Your task to perform on an android device: Open the play store Image 0: 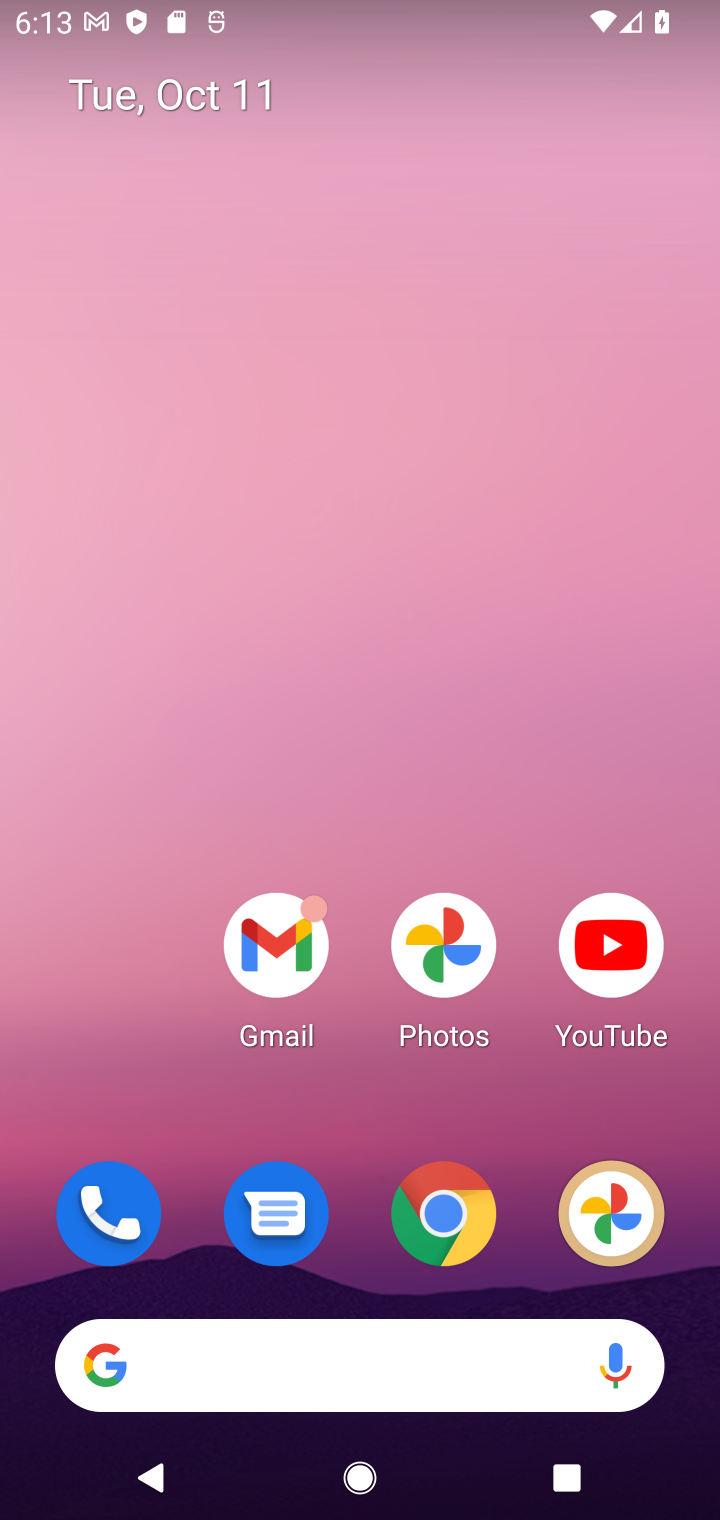
Step 0: drag from (433, 1454) to (424, 244)
Your task to perform on an android device: Open the play store Image 1: 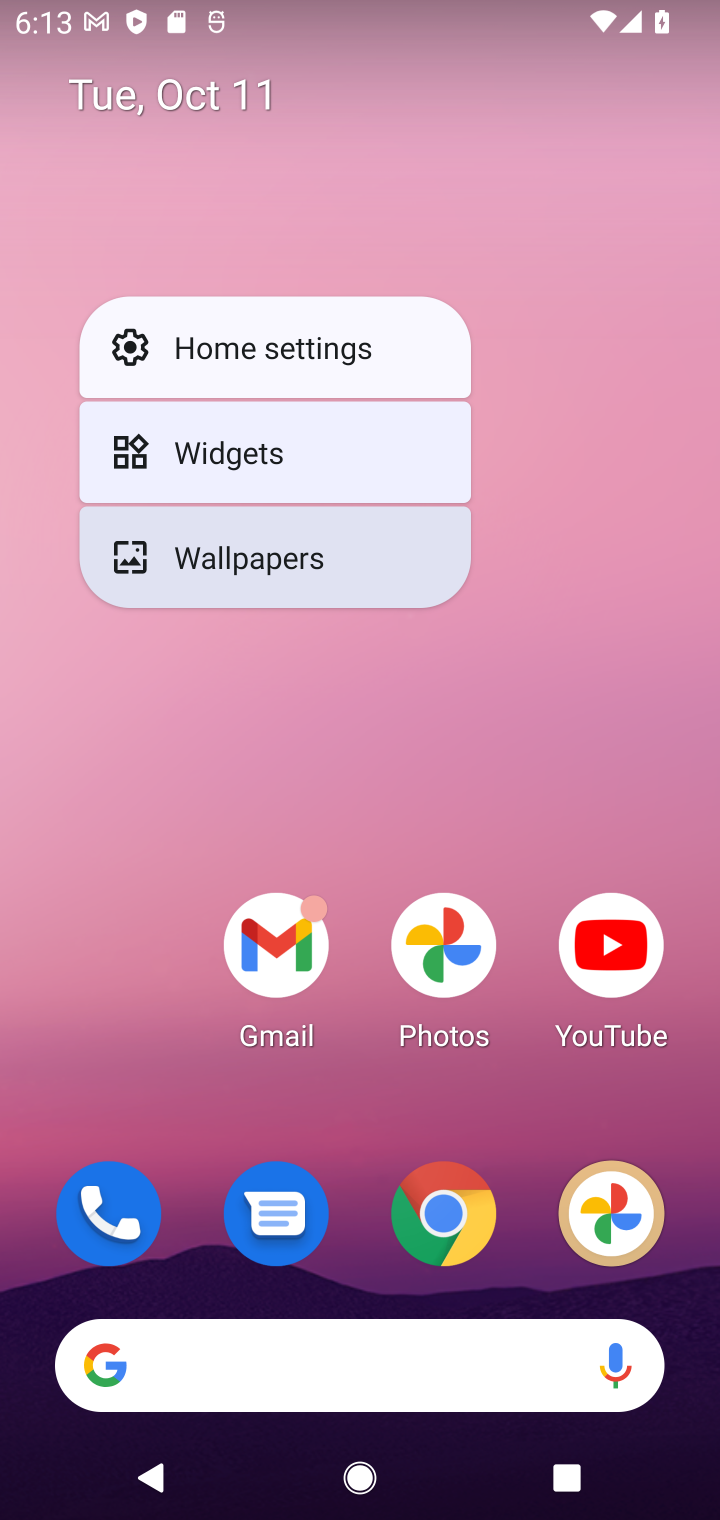
Step 1: click (529, 729)
Your task to perform on an android device: Open the play store Image 2: 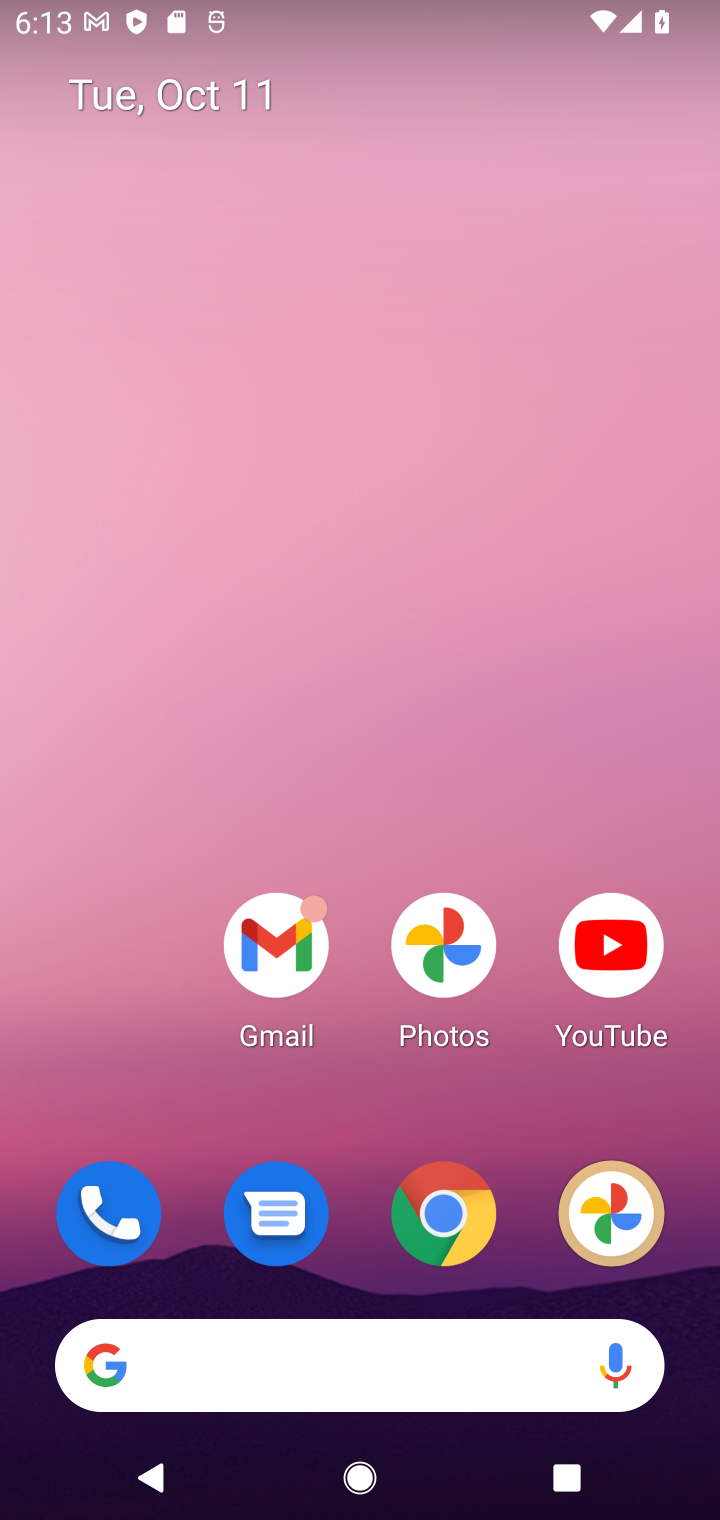
Step 2: drag from (540, 758) to (501, 525)
Your task to perform on an android device: Open the play store Image 3: 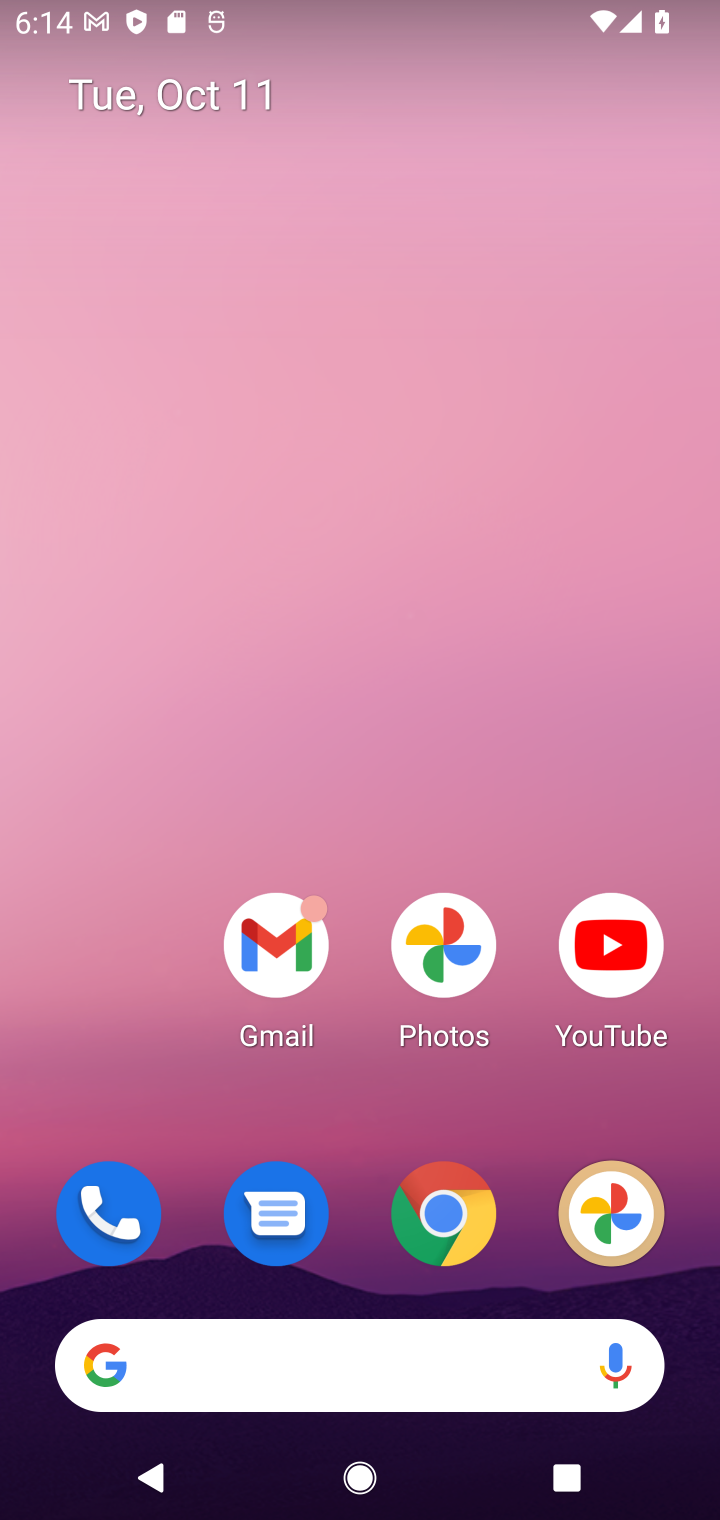
Step 3: click (438, 425)
Your task to perform on an android device: Open the play store Image 4: 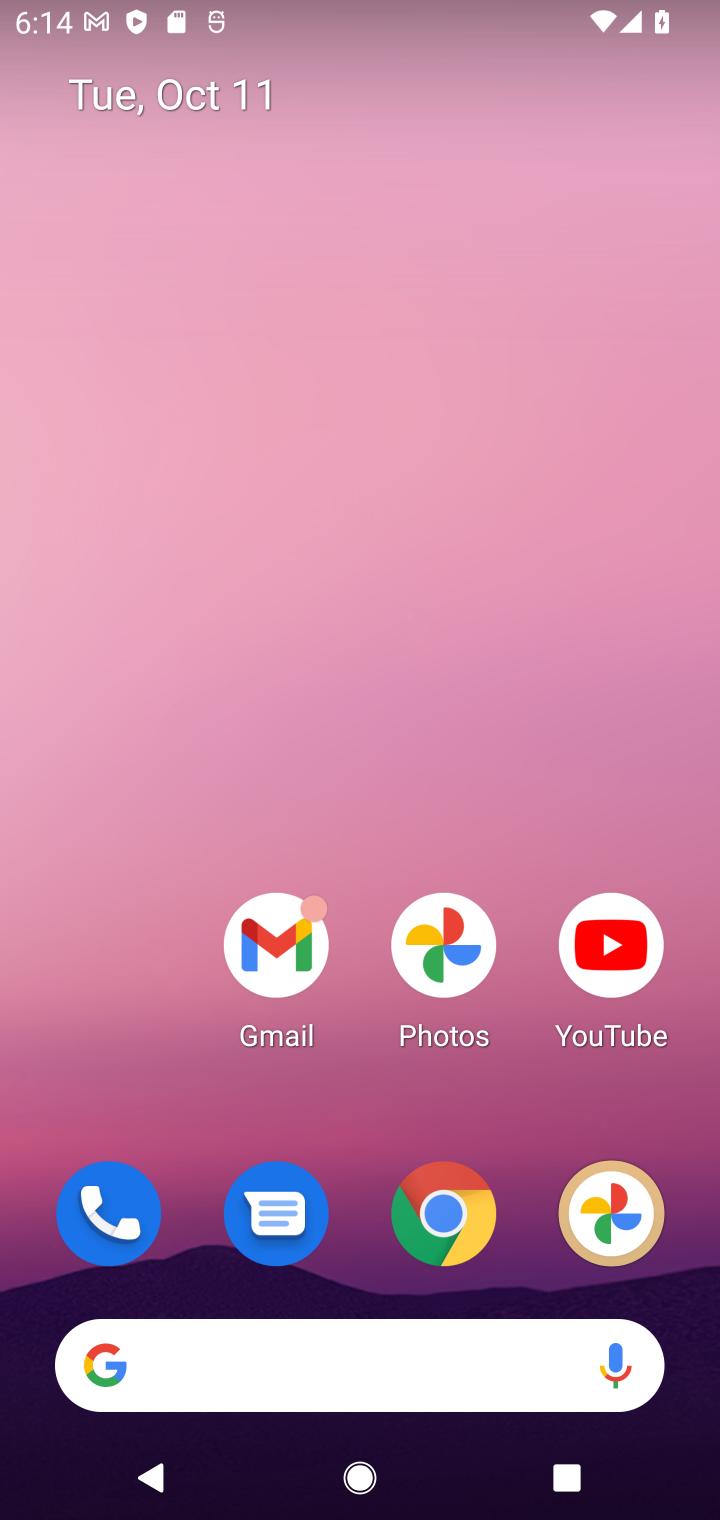
Step 4: click (335, 441)
Your task to perform on an android device: Open the play store Image 5: 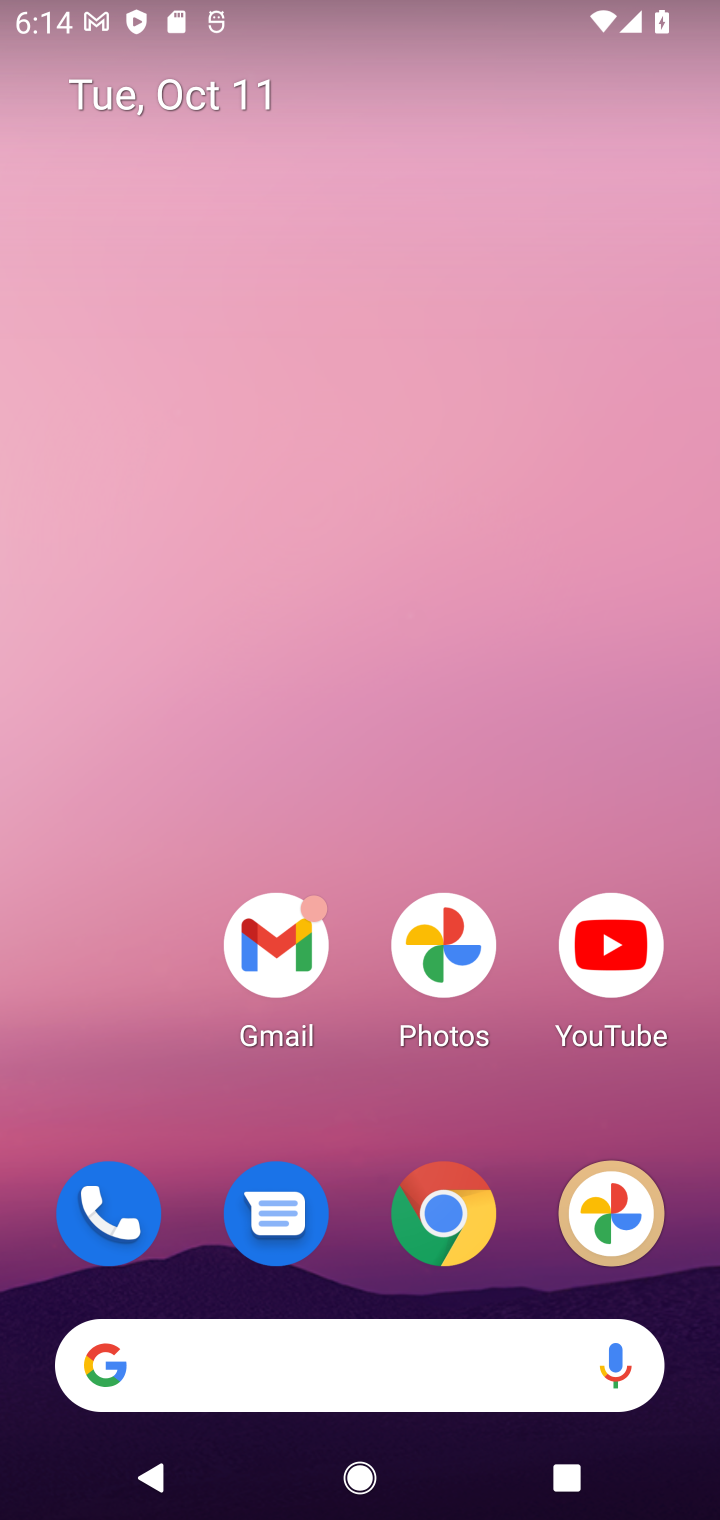
Step 5: drag from (327, 1168) to (319, 415)
Your task to perform on an android device: Open the play store Image 6: 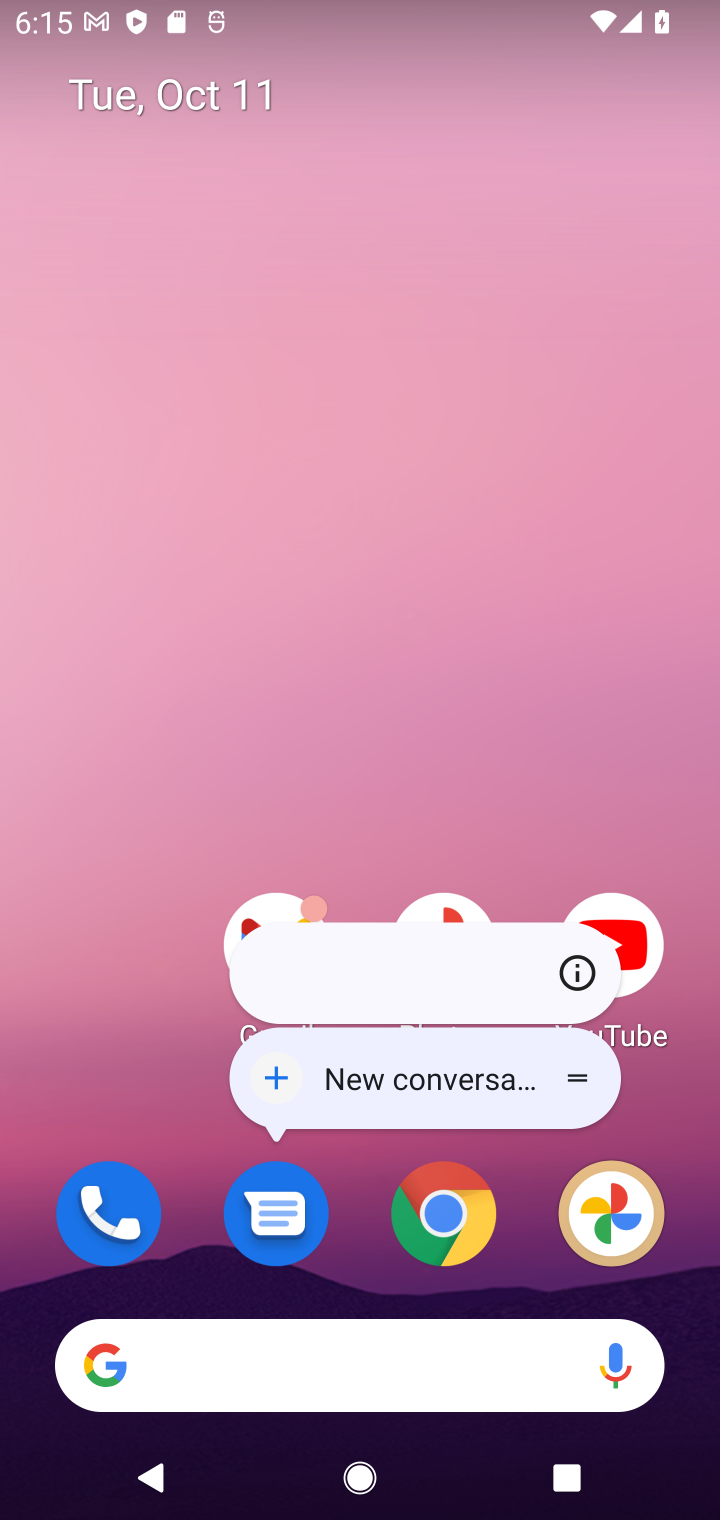
Step 6: click (343, 554)
Your task to perform on an android device: Open the play store Image 7: 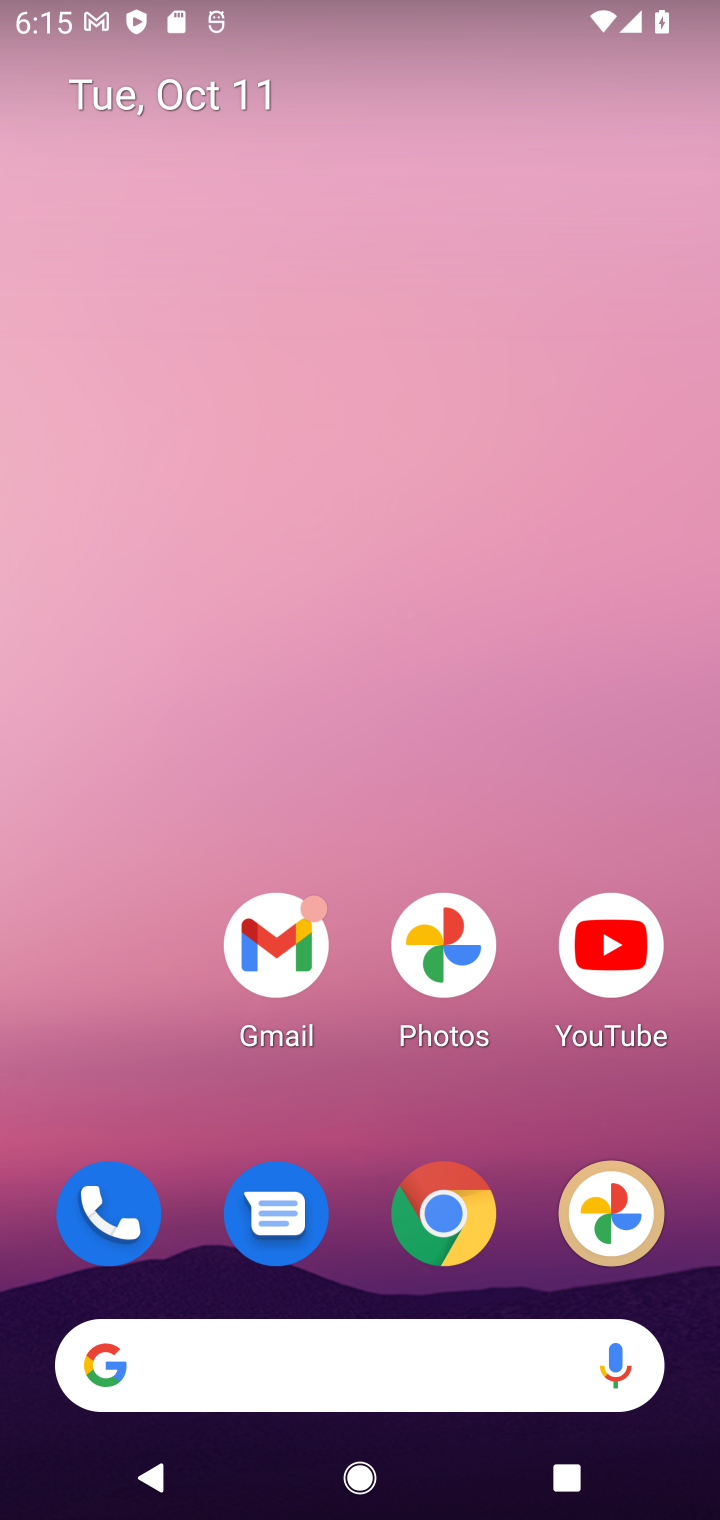
Step 7: drag from (362, 575) to (359, 465)
Your task to perform on an android device: Open the play store Image 8: 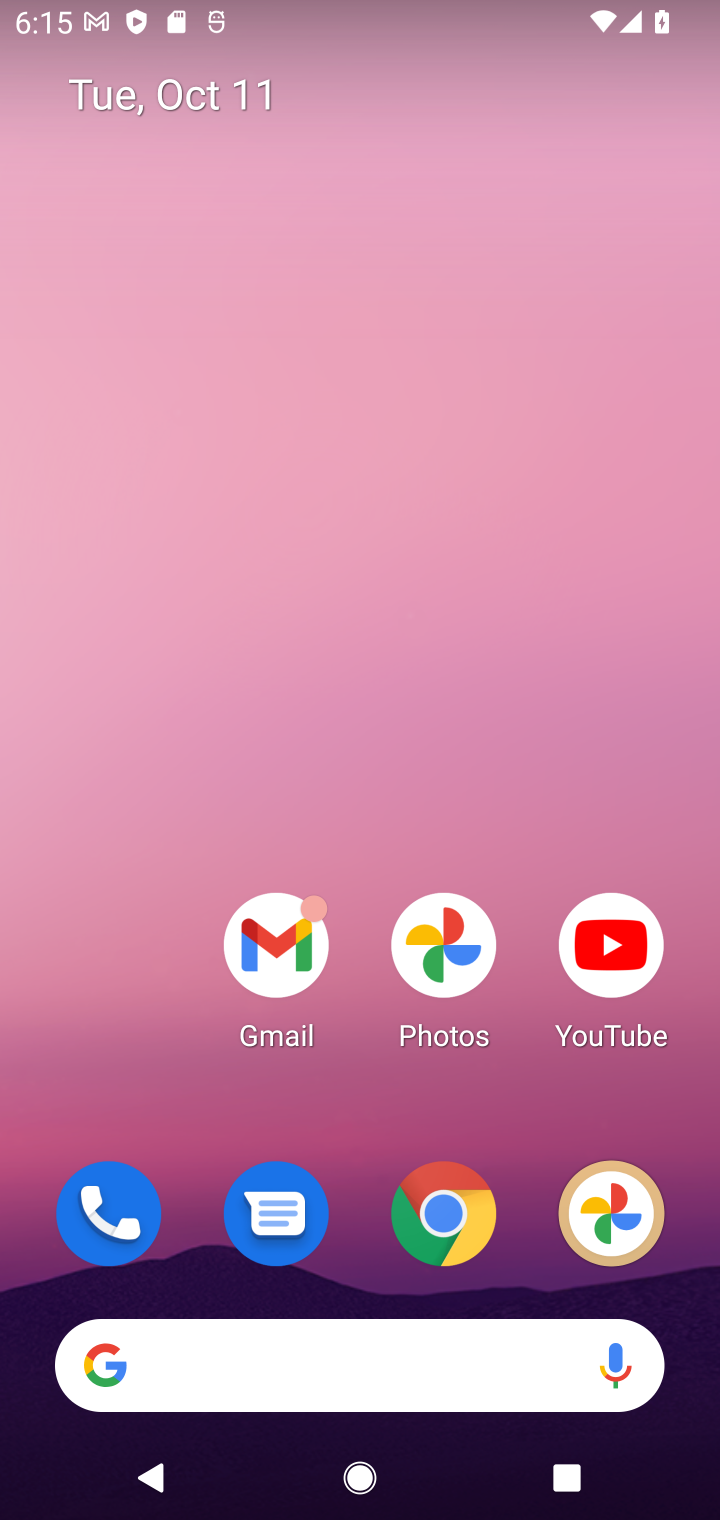
Step 8: drag from (377, 1107) to (306, 342)
Your task to perform on an android device: Open the play store Image 9: 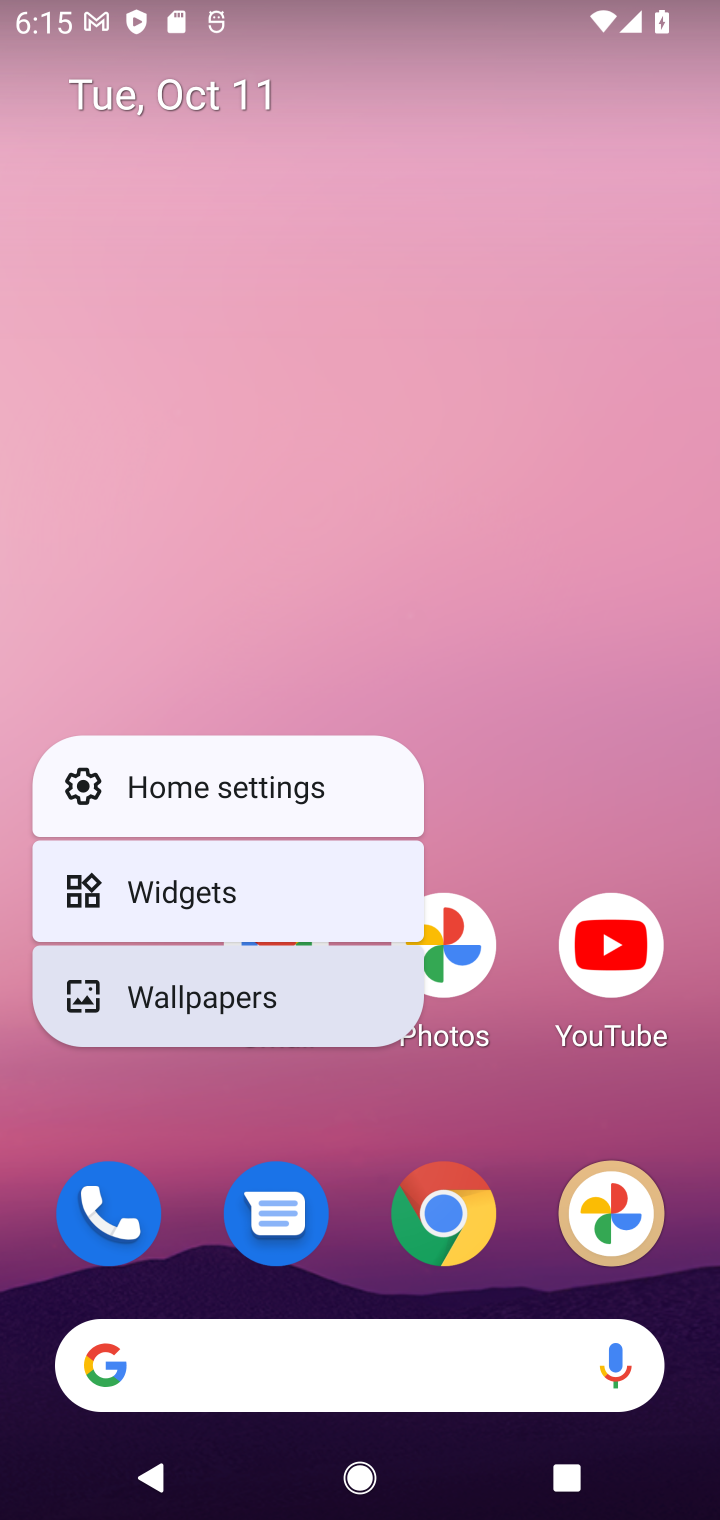
Step 9: click (492, 712)
Your task to perform on an android device: Open the play store Image 10: 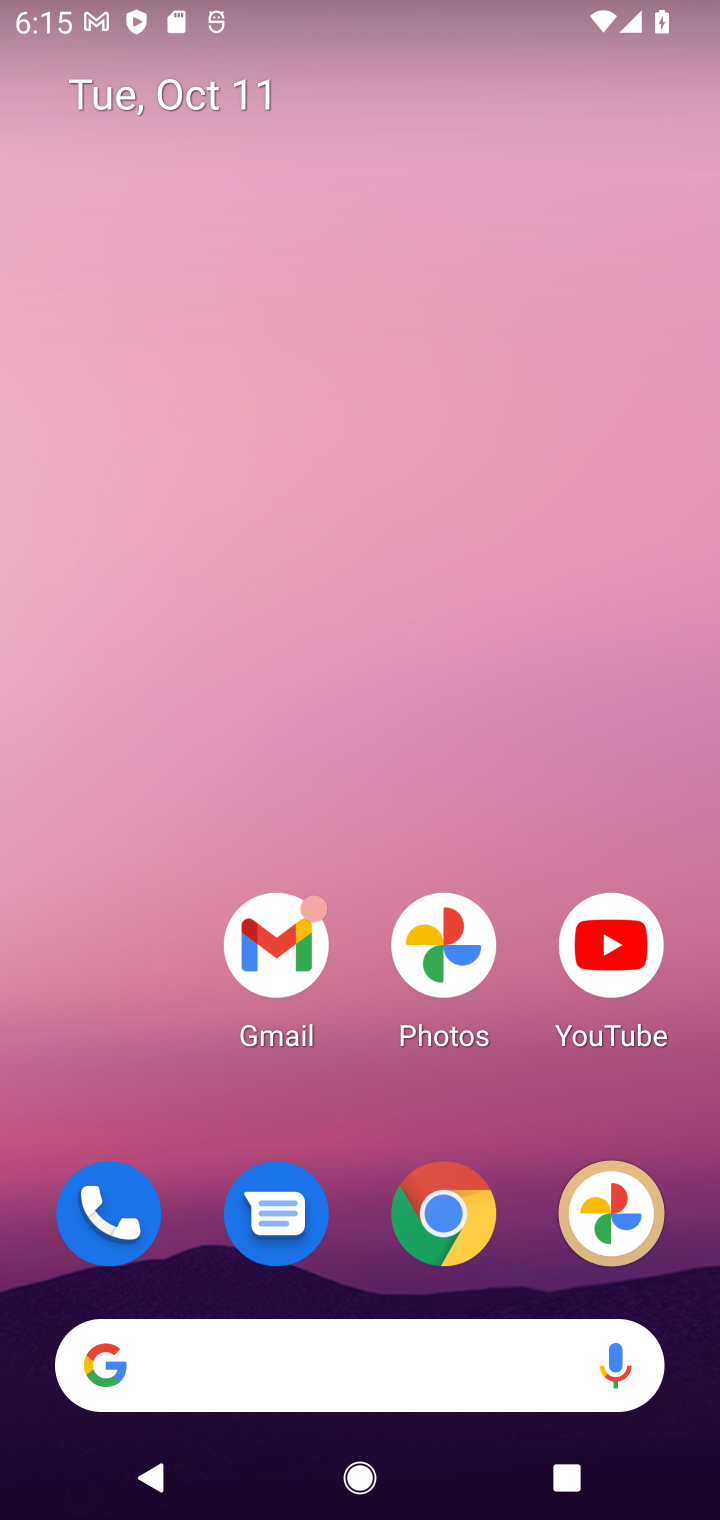
Step 10: drag from (359, 1223) to (374, 258)
Your task to perform on an android device: Open the play store Image 11: 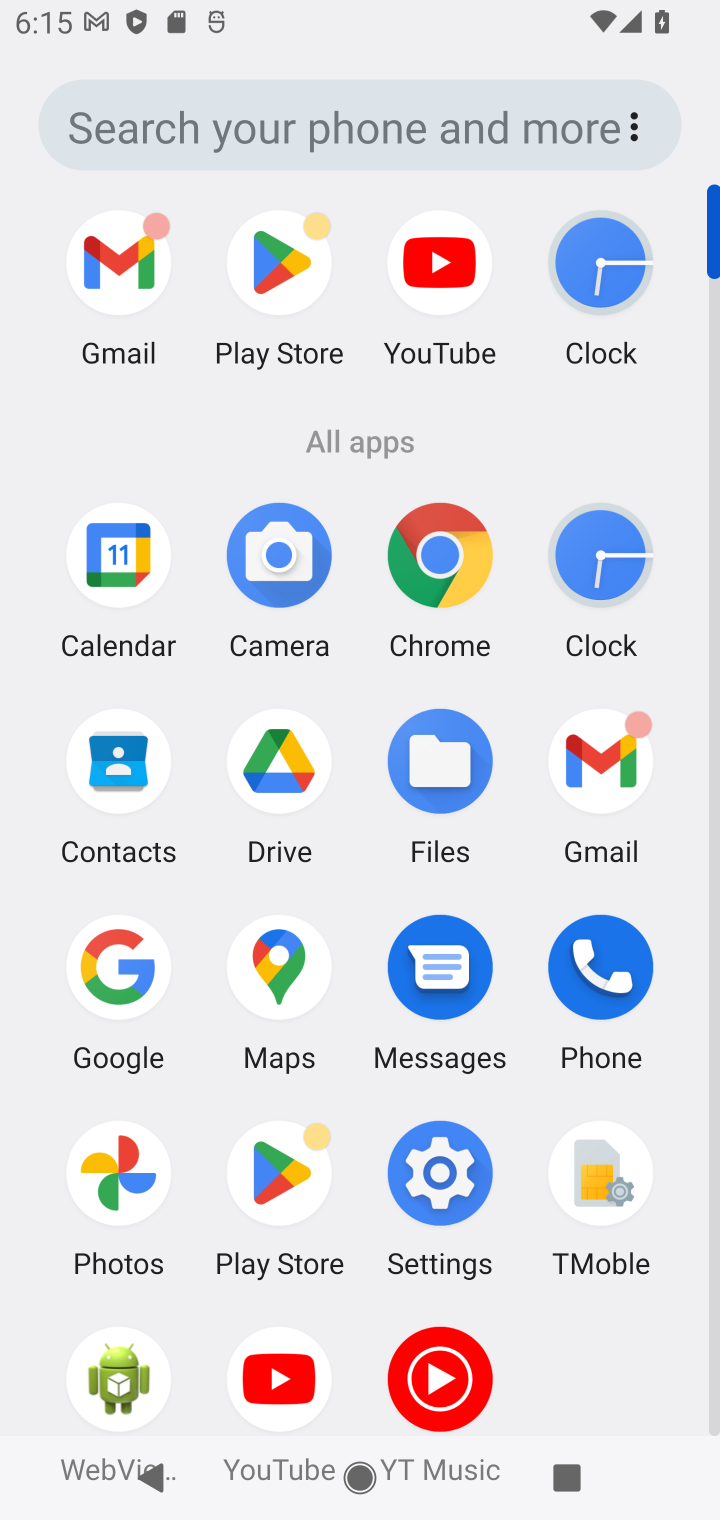
Step 11: click (285, 1139)
Your task to perform on an android device: Open the play store Image 12: 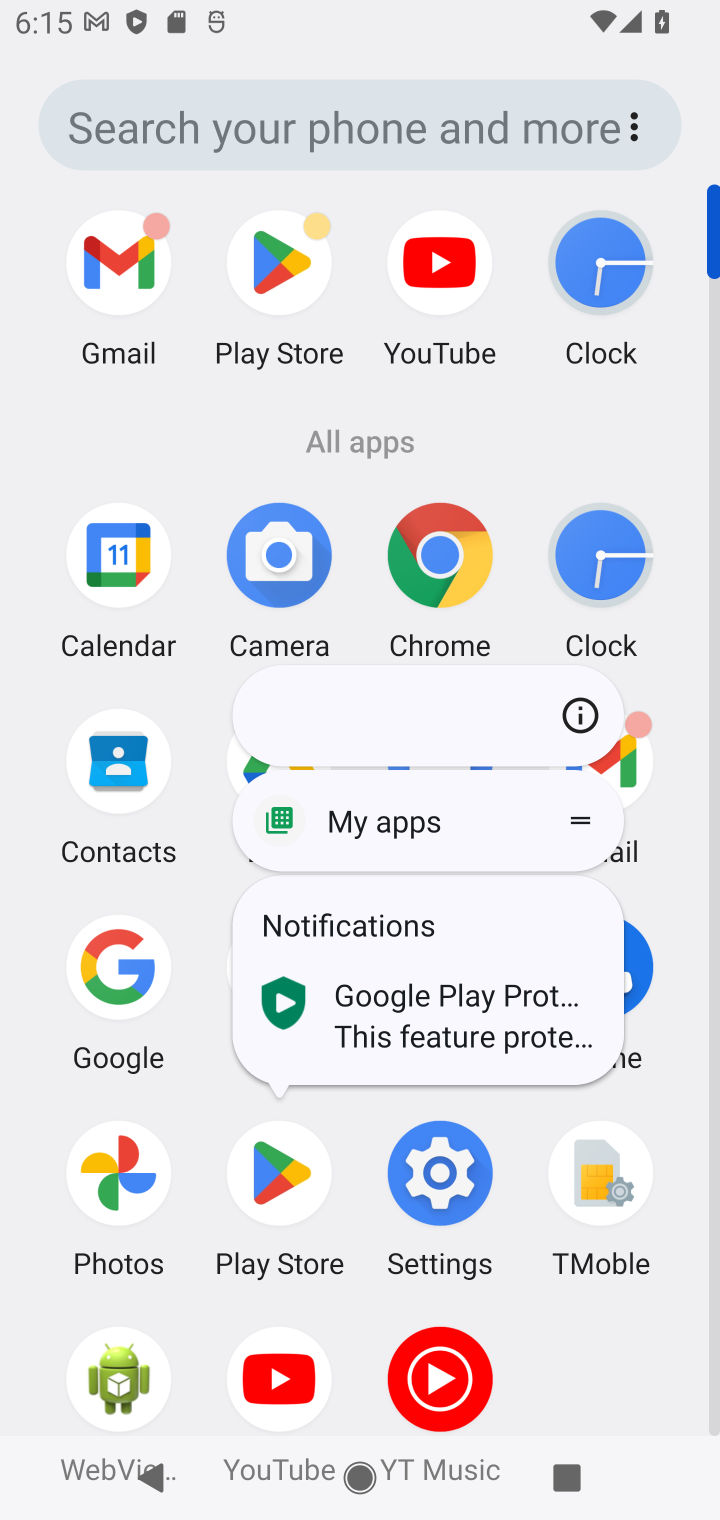
Step 12: click (271, 1155)
Your task to perform on an android device: Open the play store Image 13: 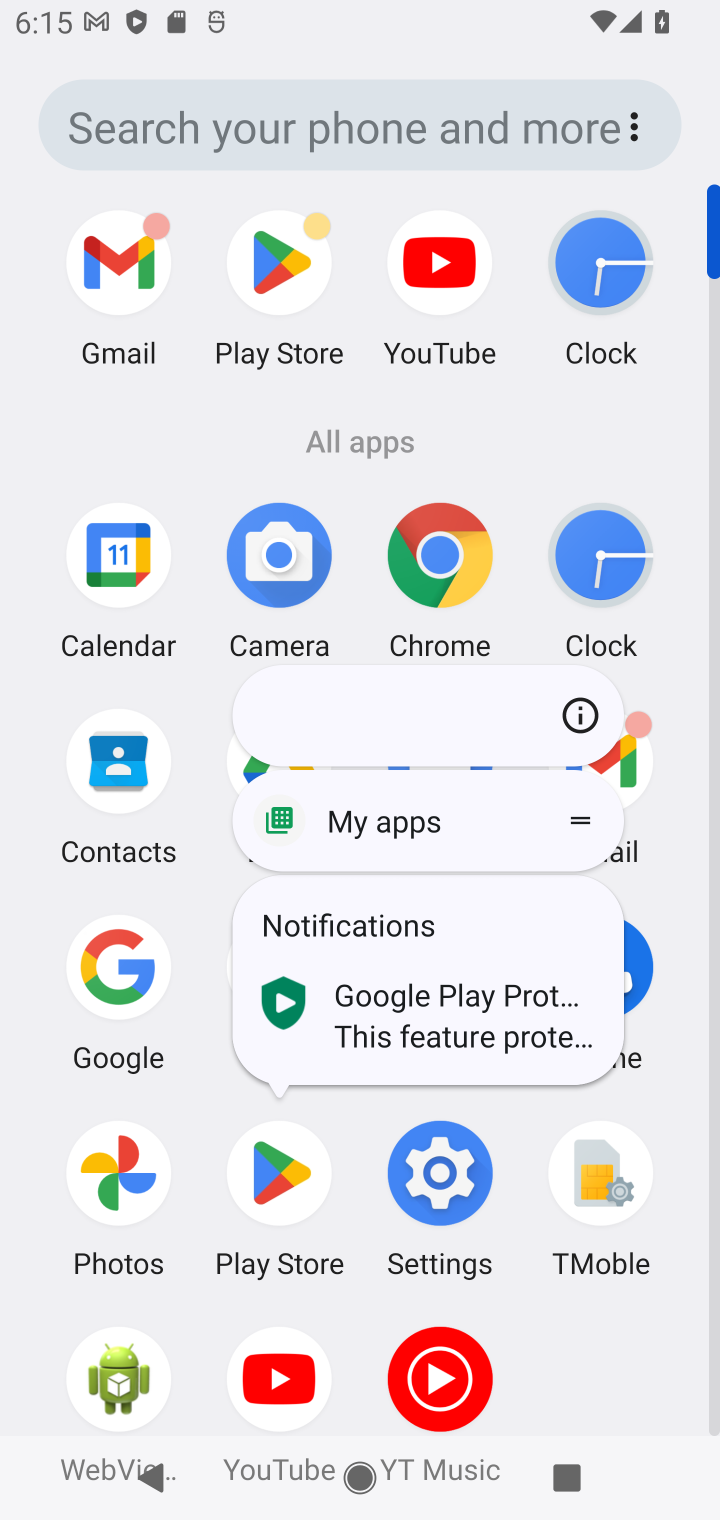
Step 13: click (258, 1188)
Your task to perform on an android device: Open the play store Image 14: 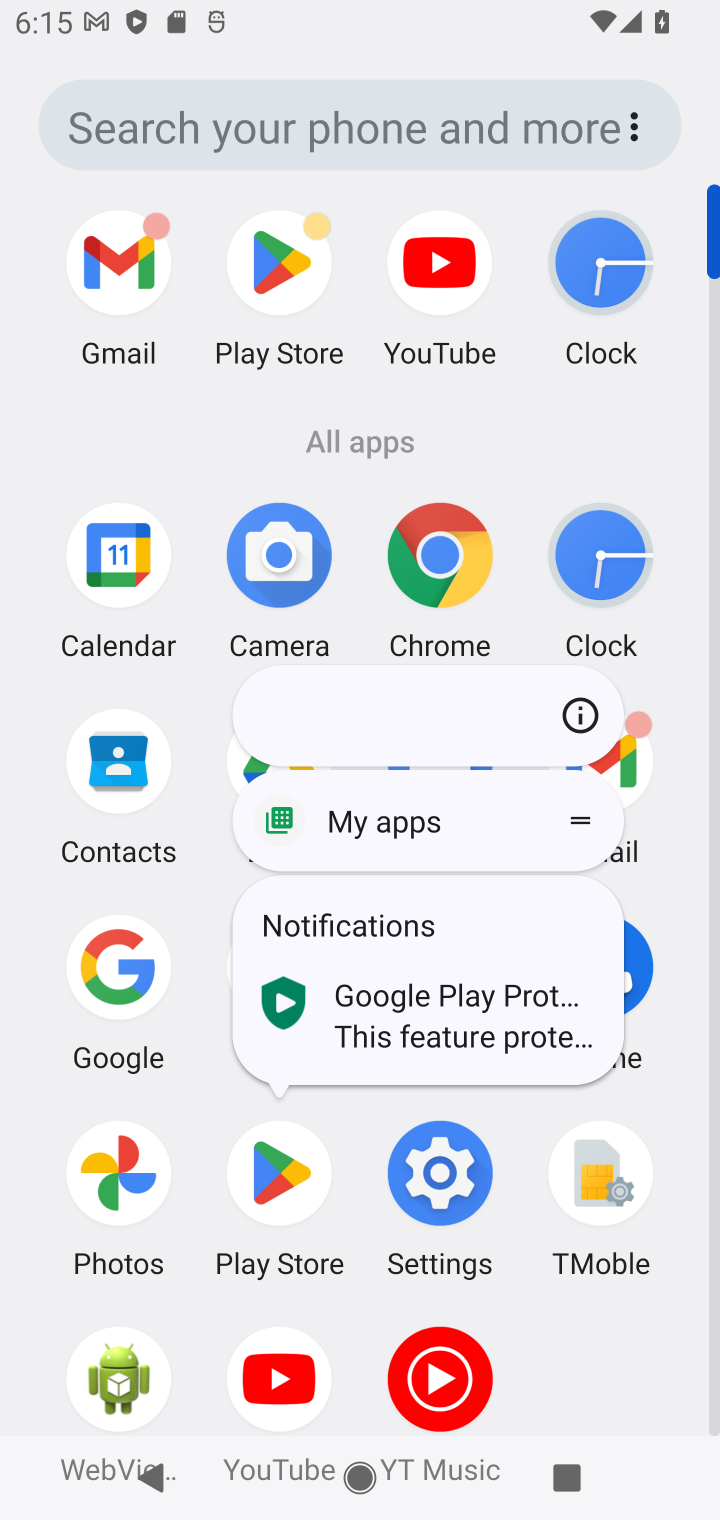
Step 14: click (270, 1156)
Your task to perform on an android device: Open the play store Image 15: 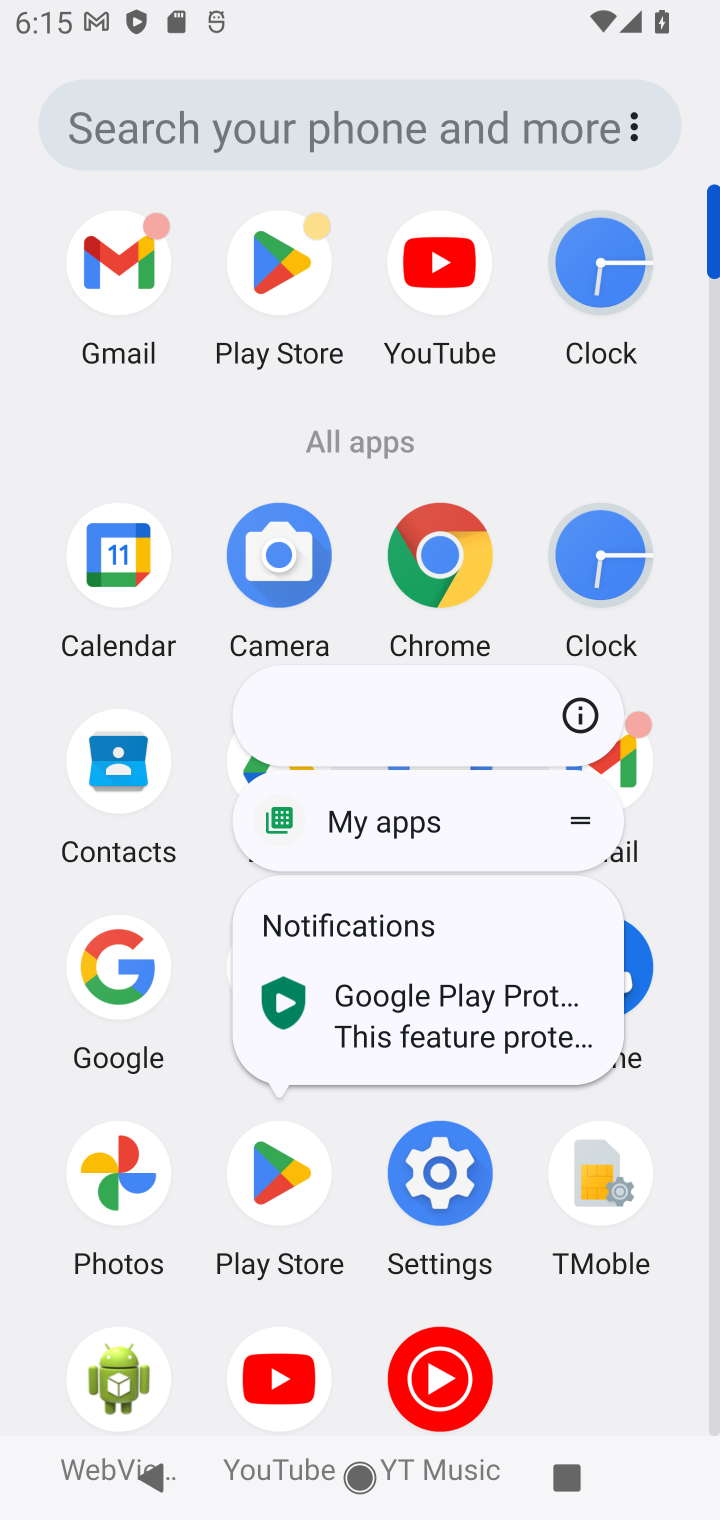
Step 15: click (270, 1156)
Your task to perform on an android device: Open the play store Image 16: 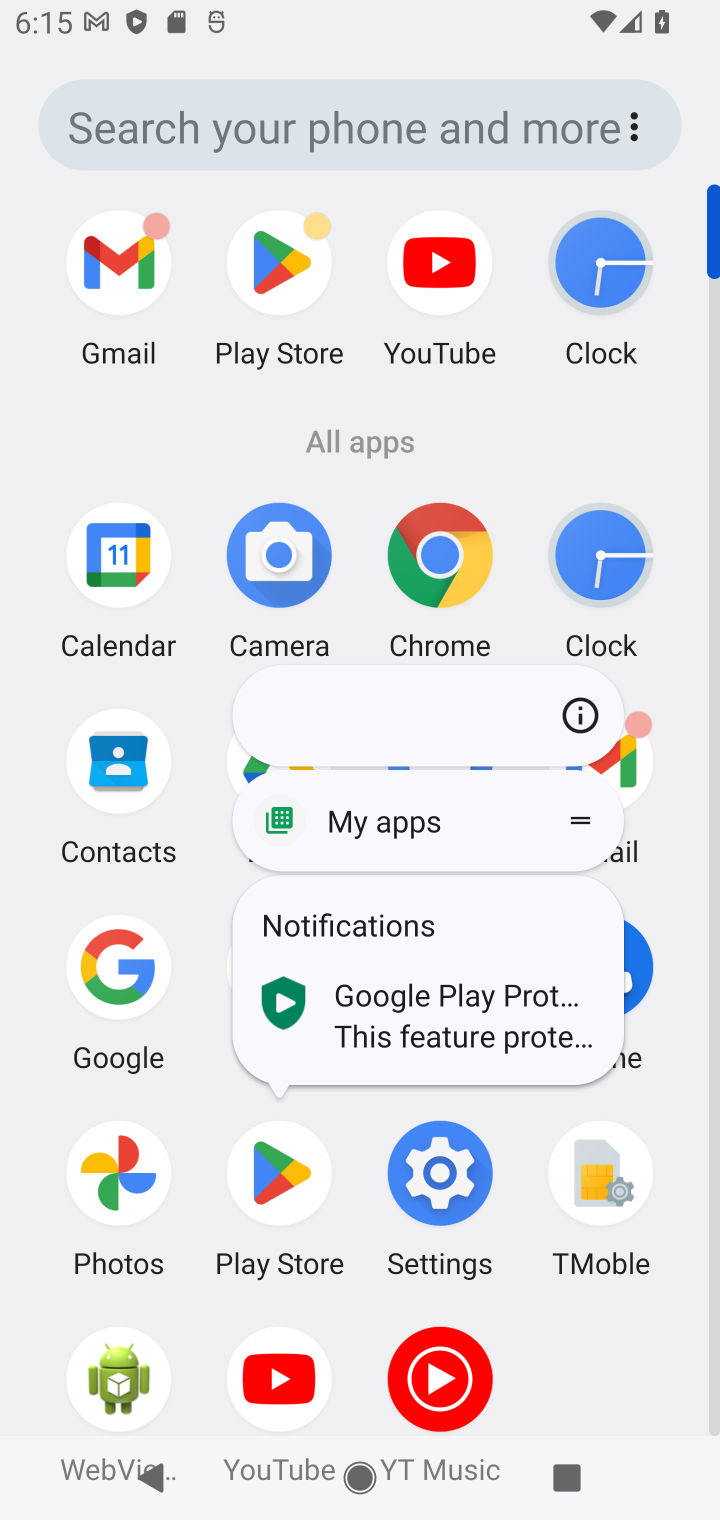
Step 16: click (285, 1176)
Your task to perform on an android device: Open the play store Image 17: 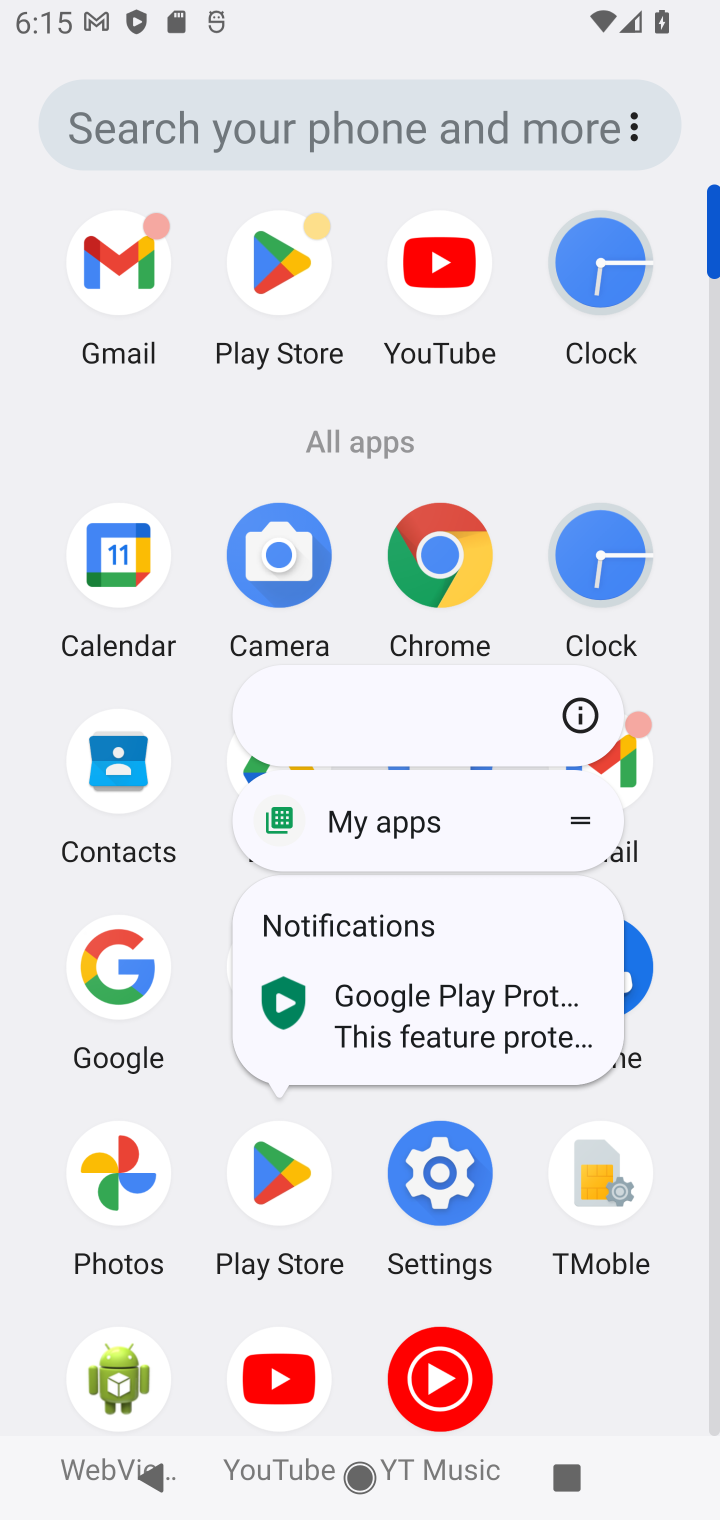
Step 17: click (253, 1160)
Your task to perform on an android device: Open the play store Image 18: 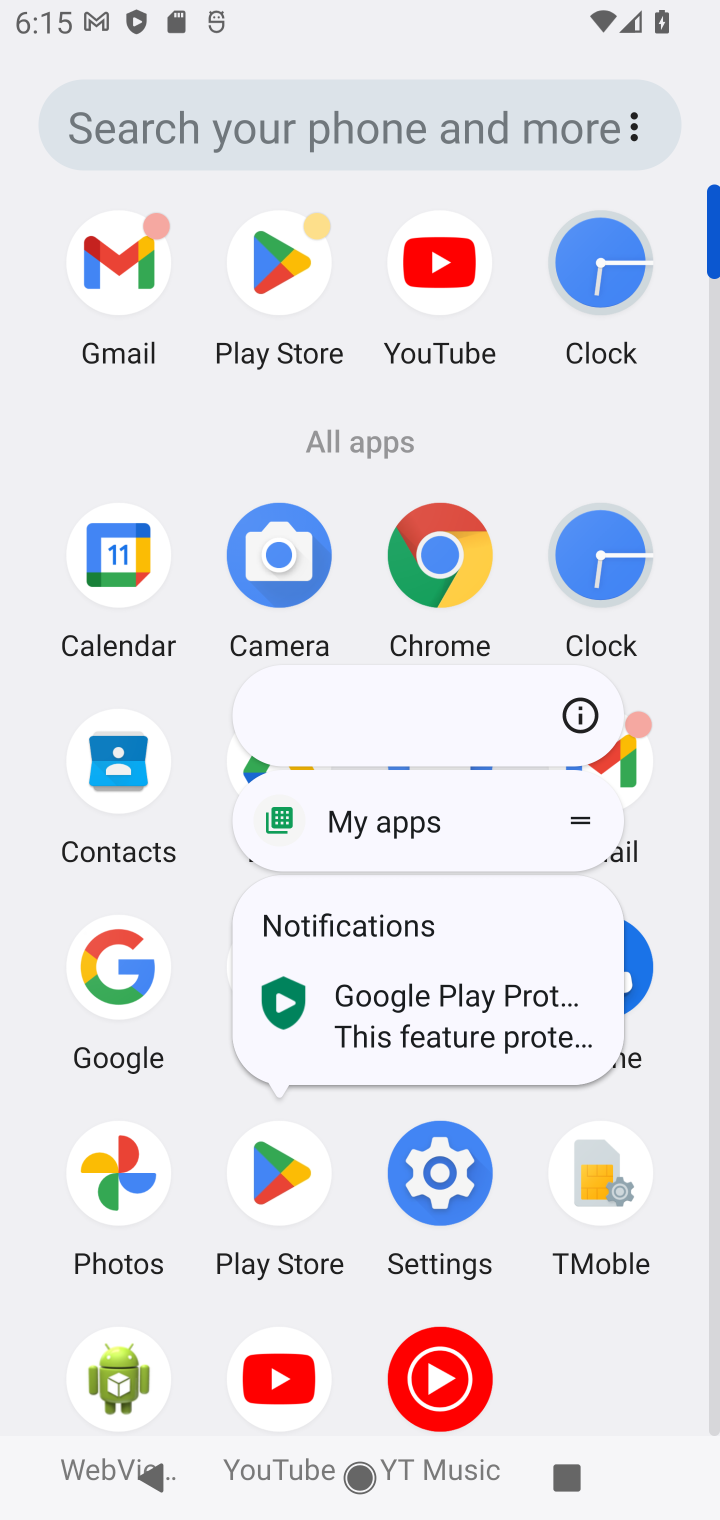
Step 18: click (274, 282)
Your task to perform on an android device: Open the play store Image 19: 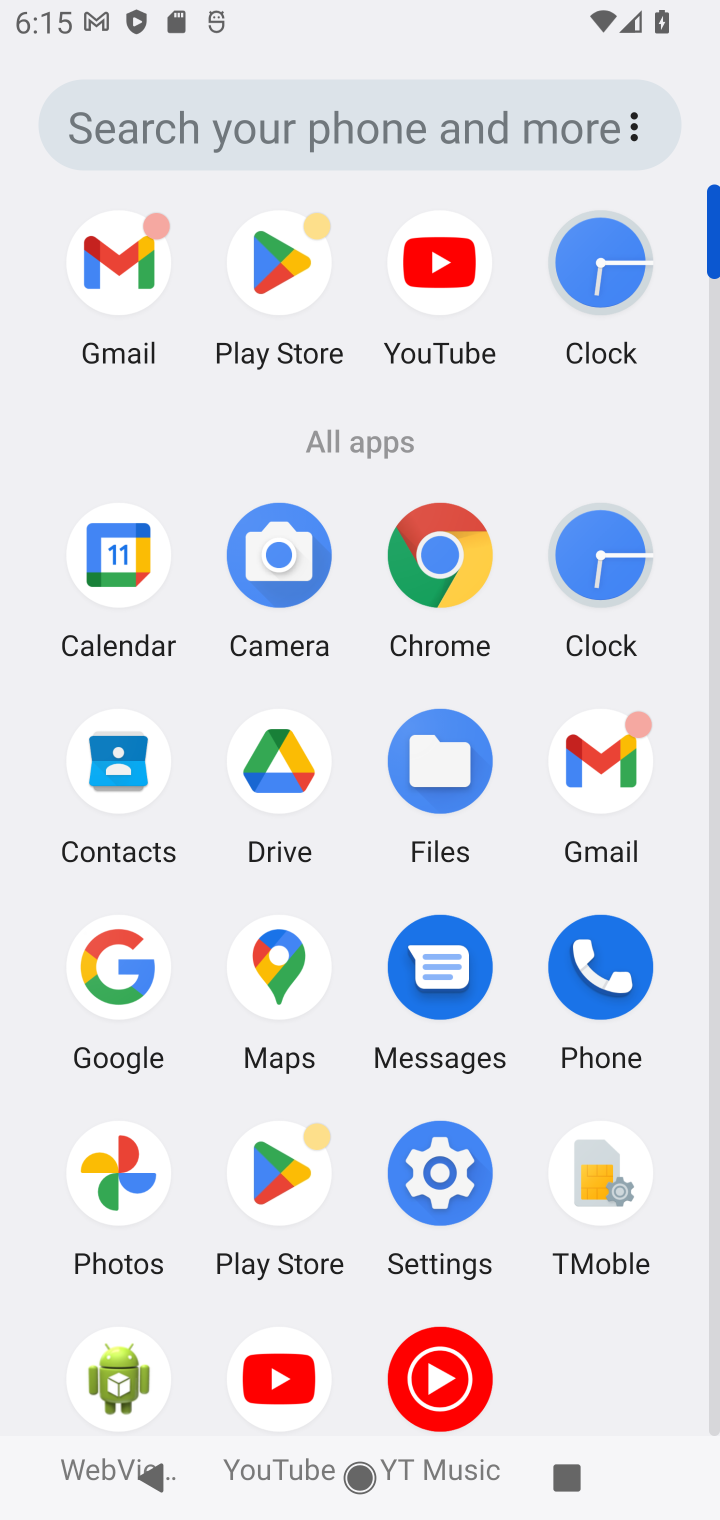
Step 19: click (274, 282)
Your task to perform on an android device: Open the play store Image 20: 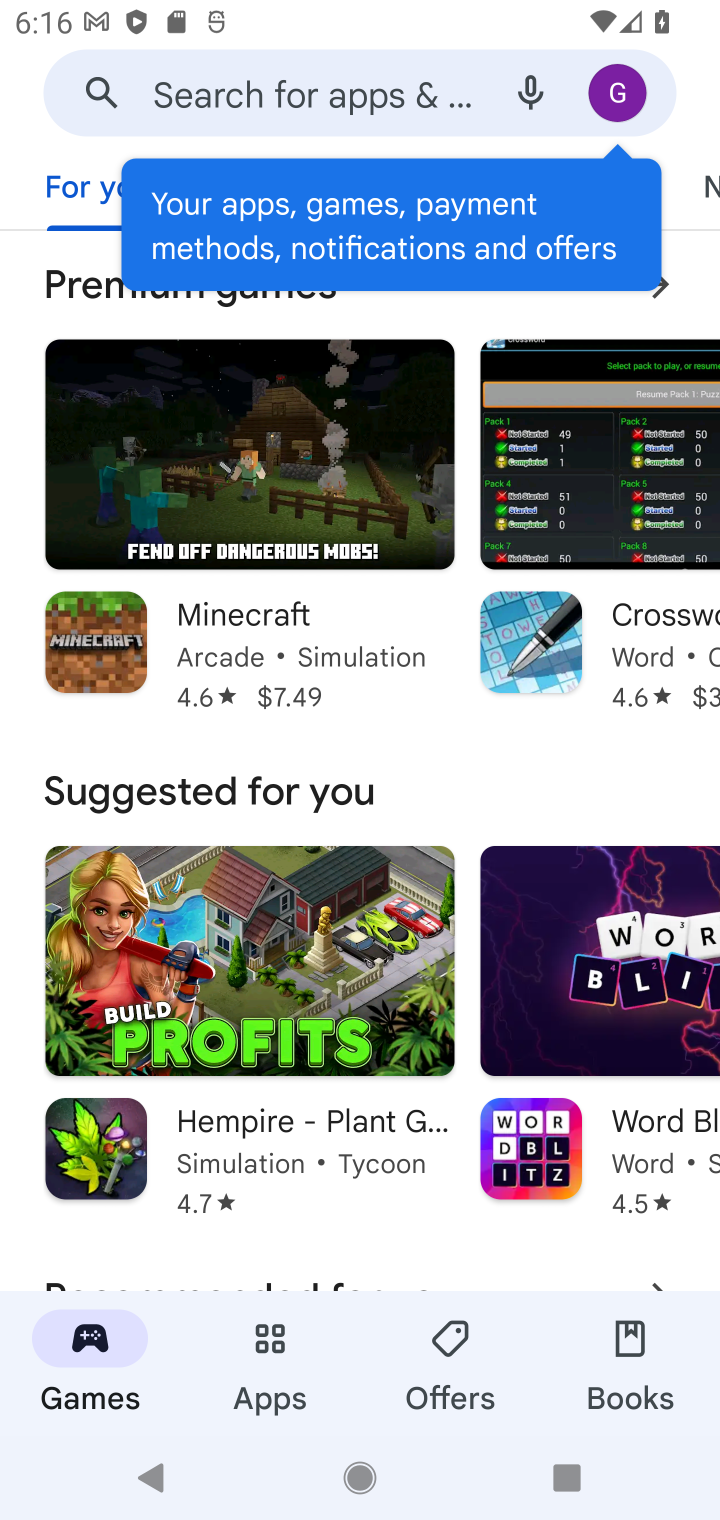
Step 20: task complete